Your task to perform on an android device: What's on my calendar tomorrow? Image 0: 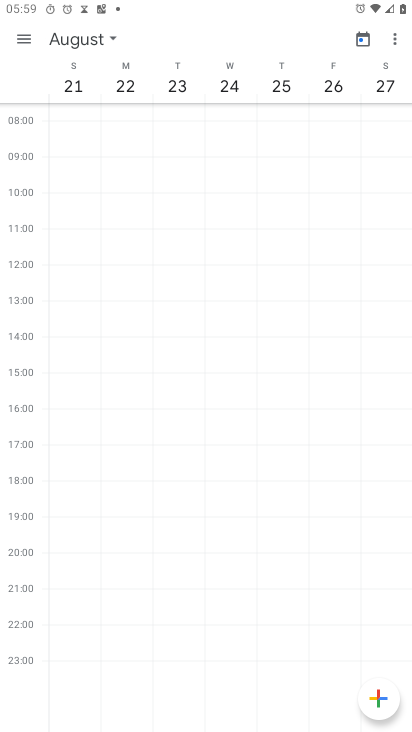
Step 0: press home button
Your task to perform on an android device: What's on my calendar tomorrow? Image 1: 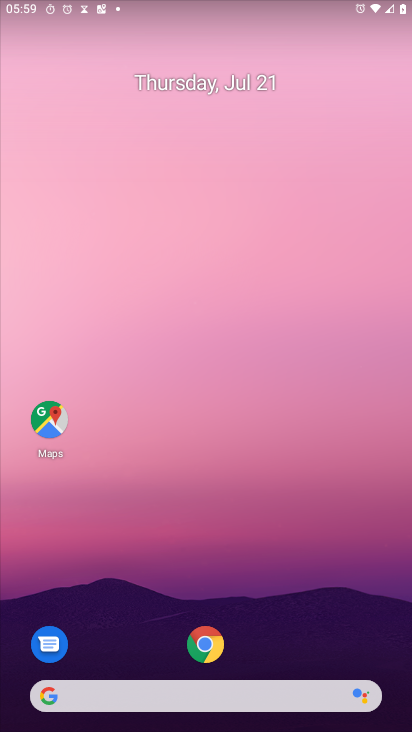
Step 1: drag from (313, 617) to (285, 161)
Your task to perform on an android device: What's on my calendar tomorrow? Image 2: 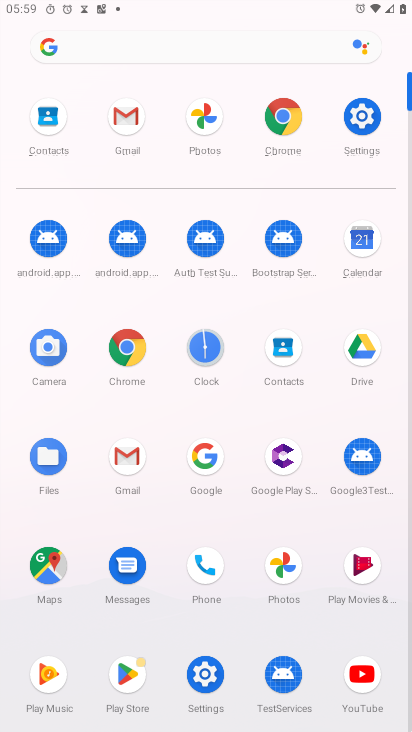
Step 2: press home button
Your task to perform on an android device: What's on my calendar tomorrow? Image 3: 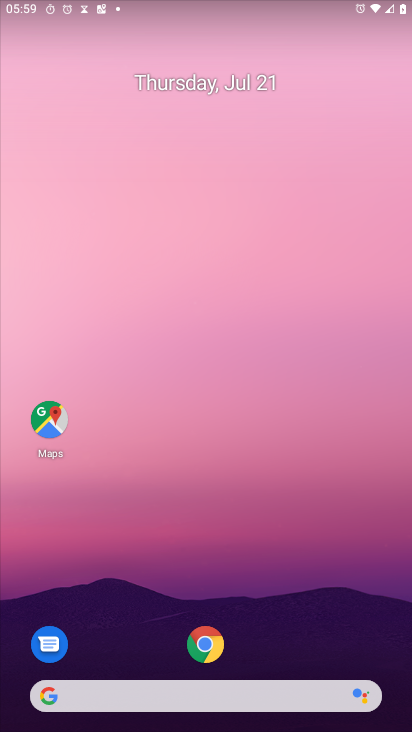
Step 3: drag from (288, 625) to (273, 187)
Your task to perform on an android device: What's on my calendar tomorrow? Image 4: 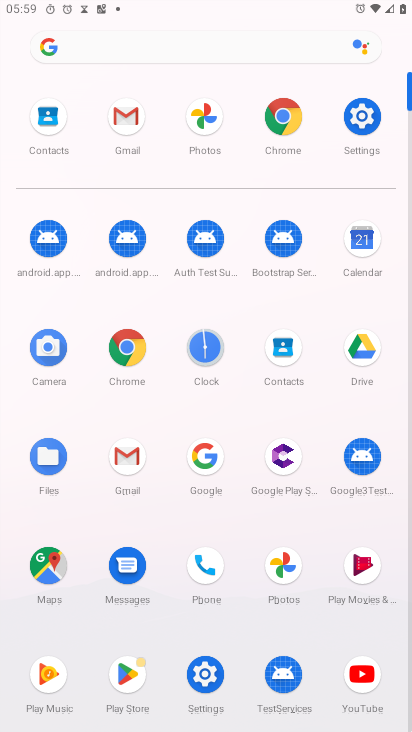
Step 4: click (369, 240)
Your task to perform on an android device: What's on my calendar tomorrow? Image 5: 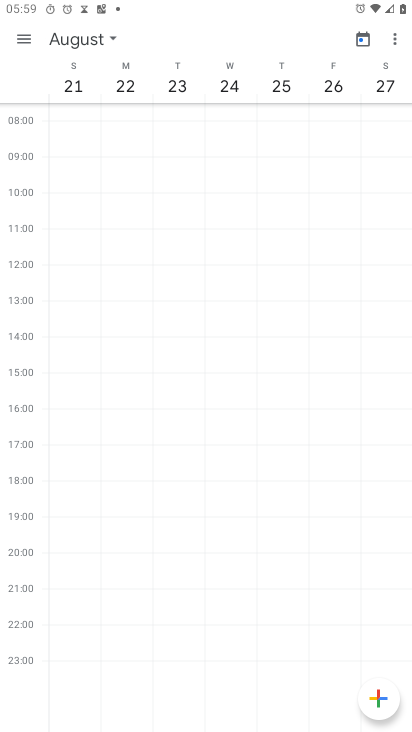
Step 5: click (25, 39)
Your task to perform on an android device: What's on my calendar tomorrow? Image 6: 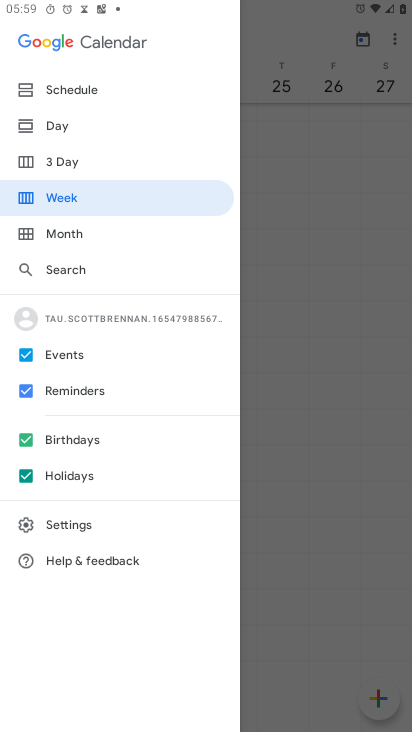
Step 6: click (65, 237)
Your task to perform on an android device: What's on my calendar tomorrow? Image 7: 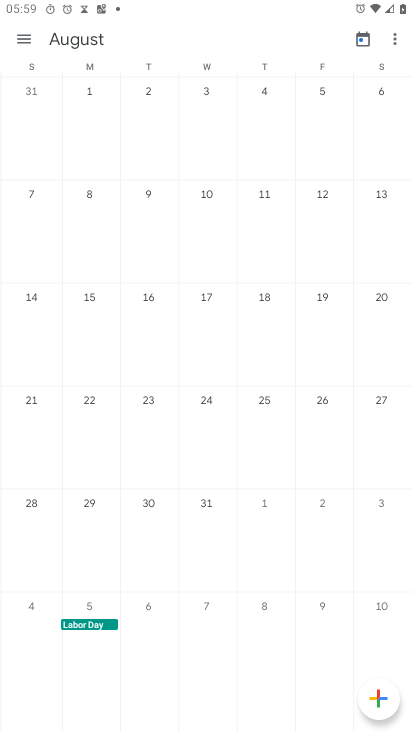
Step 7: drag from (91, 334) to (397, 436)
Your task to perform on an android device: What's on my calendar tomorrow? Image 8: 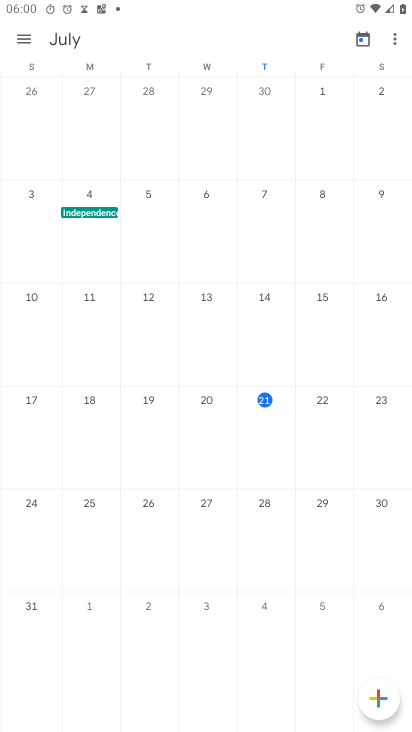
Step 8: click (331, 398)
Your task to perform on an android device: What's on my calendar tomorrow? Image 9: 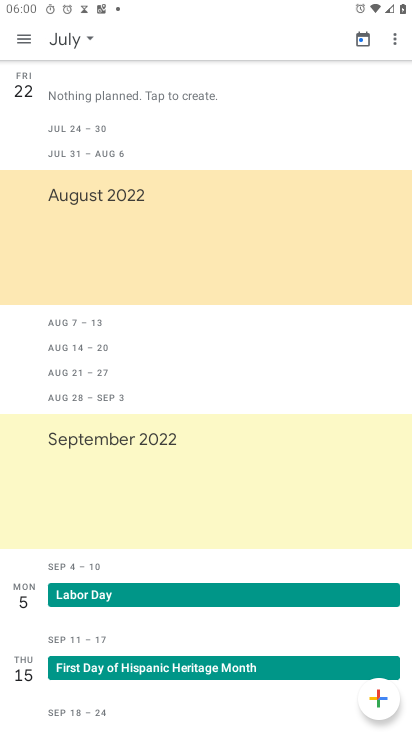
Step 9: task complete